Your task to perform on an android device: turn on data saver in the chrome app Image 0: 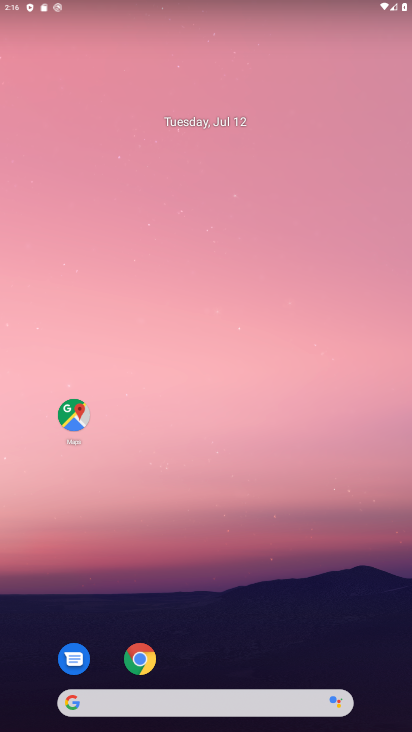
Step 0: click (149, 660)
Your task to perform on an android device: turn on data saver in the chrome app Image 1: 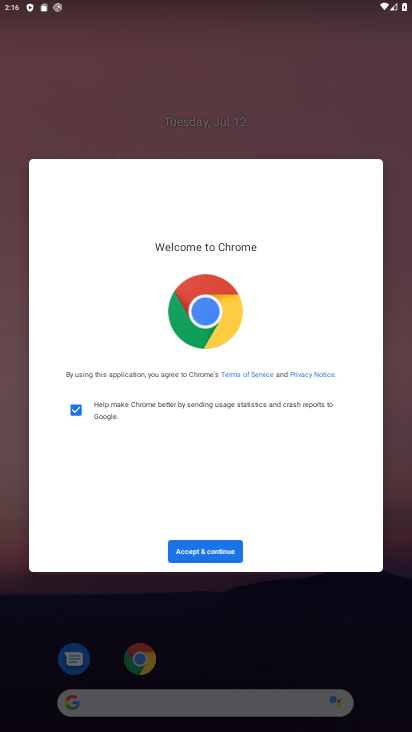
Step 1: click (199, 554)
Your task to perform on an android device: turn on data saver in the chrome app Image 2: 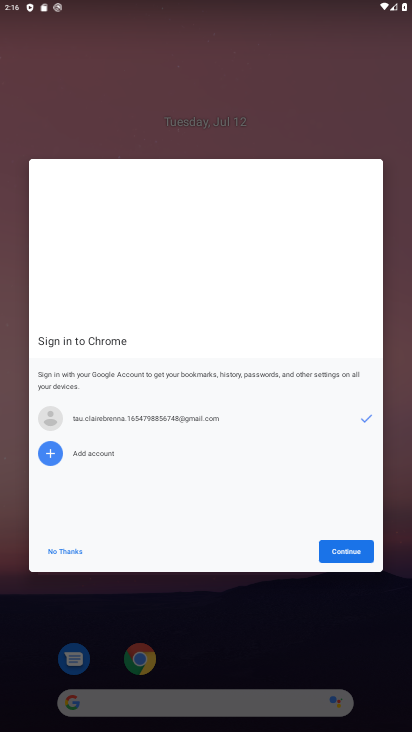
Step 2: click (358, 550)
Your task to perform on an android device: turn on data saver in the chrome app Image 3: 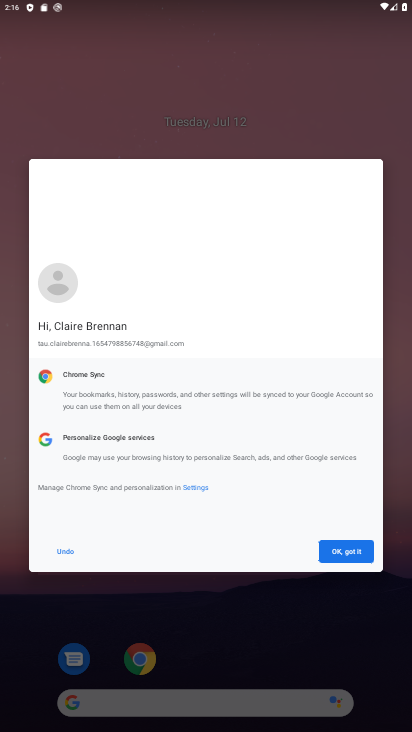
Step 3: click (358, 550)
Your task to perform on an android device: turn on data saver in the chrome app Image 4: 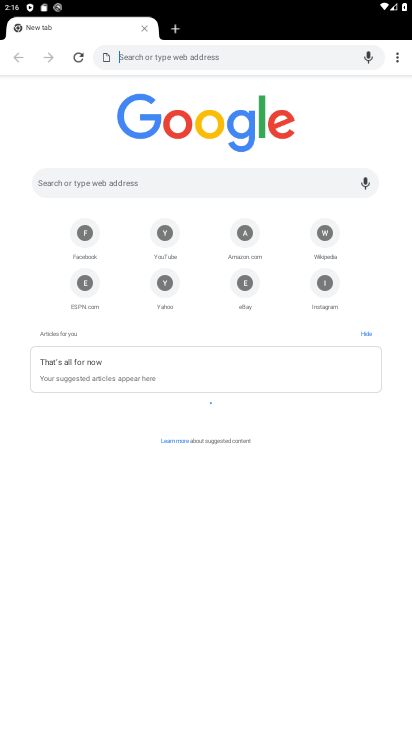
Step 4: click (397, 58)
Your task to perform on an android device: turn on data saver in the chrome app Image 5: 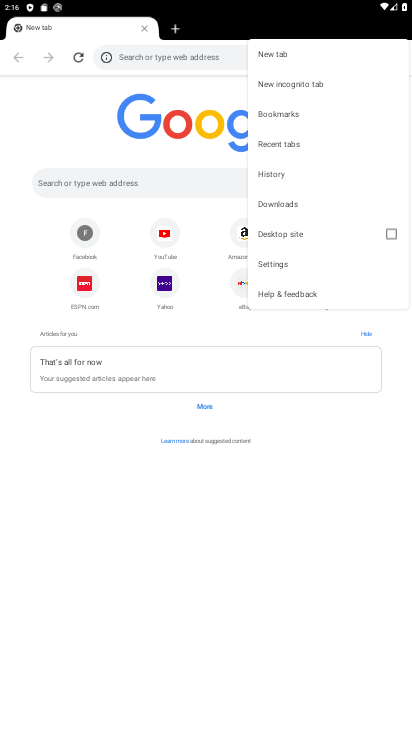
Step 5: click (275, 259)
Your task to perform on an android device: turn on data saver in the chrome app Image 6: 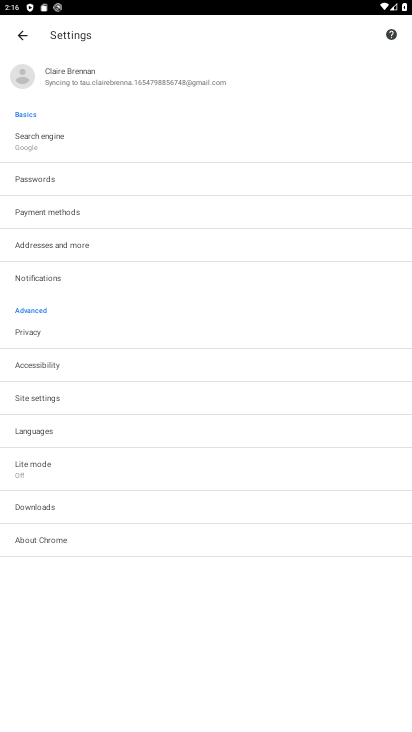
Step 6: click (42, 457)
Your task to perform on an android device: turn on data saver in the chrome app Image 7: 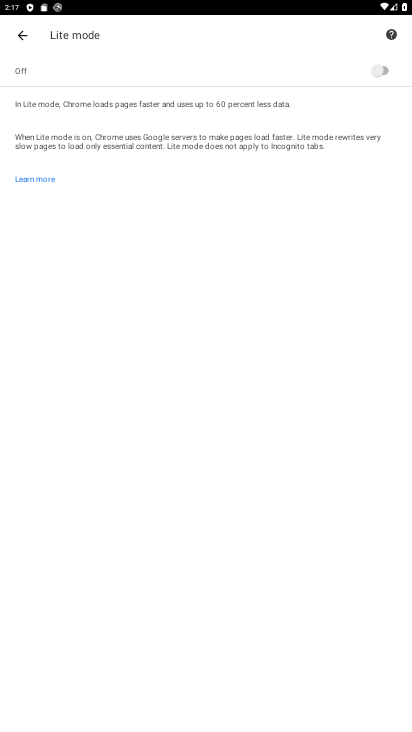
Step 7: click (378, 68)
Your task to perform on an android device: turn on data saver in the chrome app Image 8: 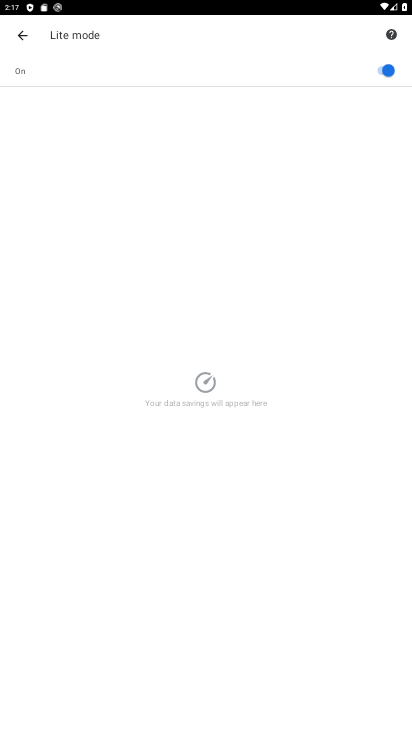
Step 8: task complete